Your task to perform on an android device: empty trash in the gmail app Image 0: 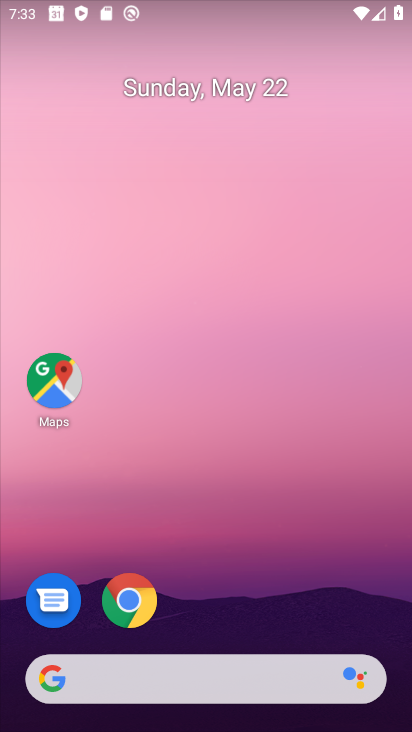
Step 0: drag from (201, 514) to (163, 12)
Your task to perform on an android device: empty trash in the gmail app Image 1: 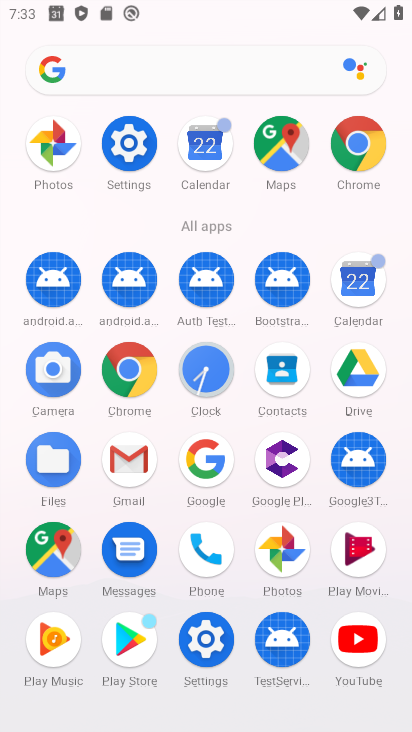
Step 1: drag from (7, 515) to (12, 263)
Your task to perform on an android device: empty trash in the gmail app Image 2: 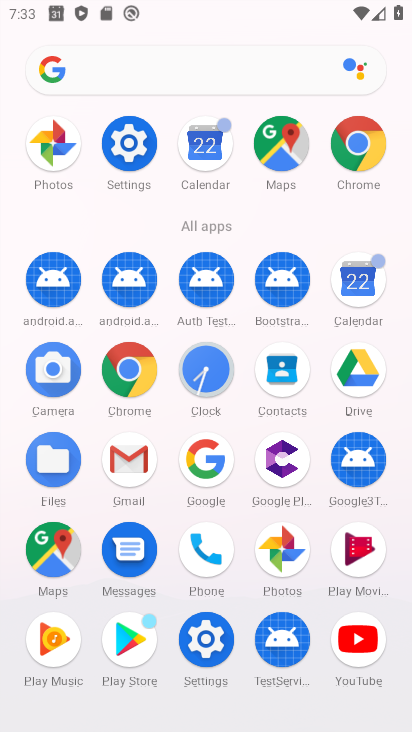
Step 2: click (130, 452)
Your task to perform on an android device: empty trash in the gmail app Image 3: 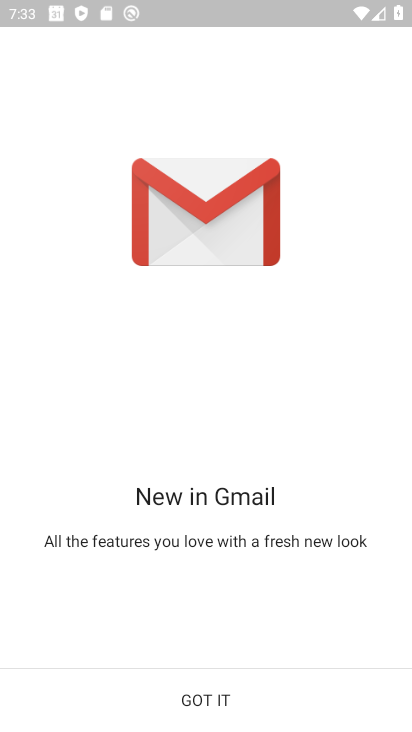
Step 3: click (197, 709)
Your task to perform on an android device: empty trash in the gmail app Image 4: 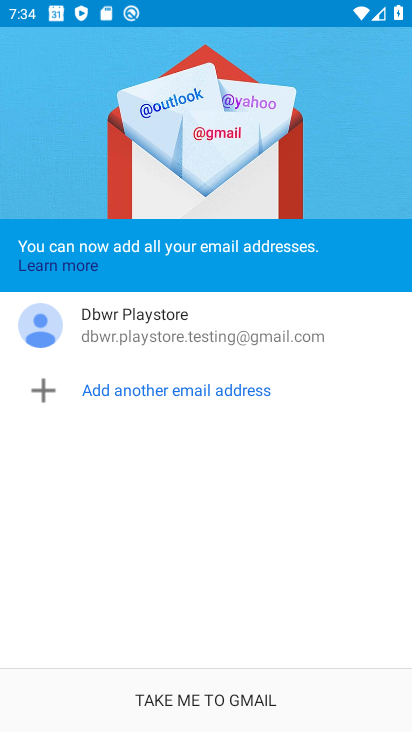
Step 4: click (179, 708)
Your task to perform on an android device: empty trash in the gmail app Image 5: 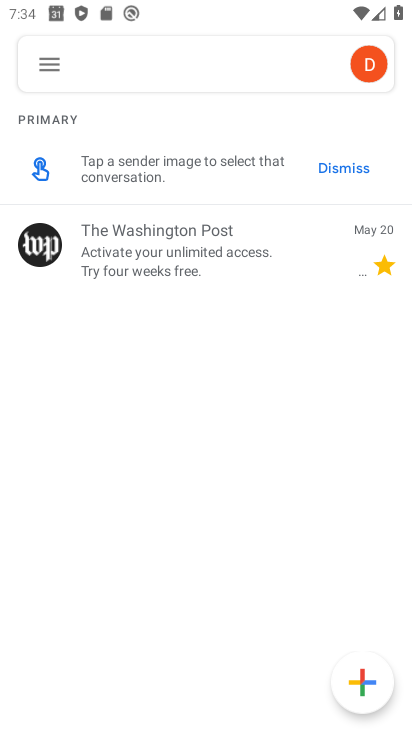
Step 5: click (50, 64)
Your task to perform on an android device: empty trash in the gmail app Image 6: 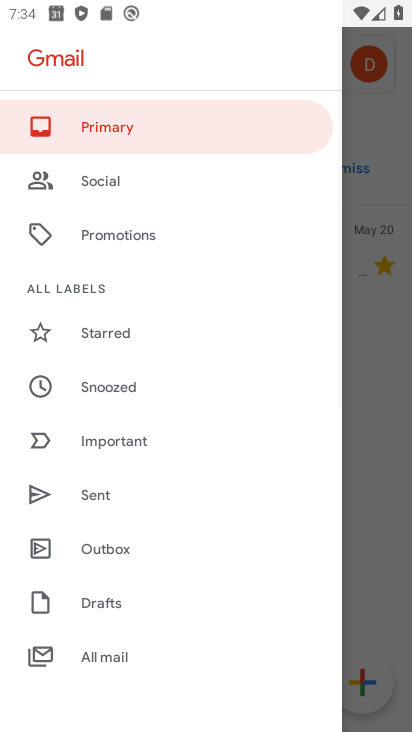
Step 6: drag from (137, 632) to (155, 182)
Your task to perform on an android device: empty trash in the gmail app Image 7: 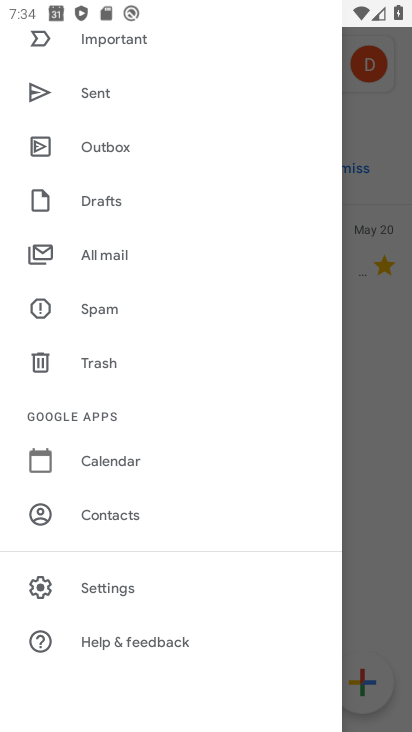
Step 7: click (116, 354)
Your task to perform on an android device: empty trash in the gmail app Image 8: 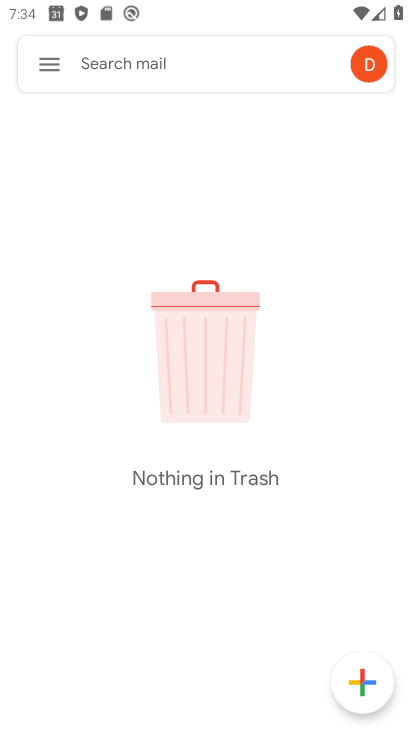
Step 8: task complete